Your task to perform on an android device: Open Google Chrome Image 0: 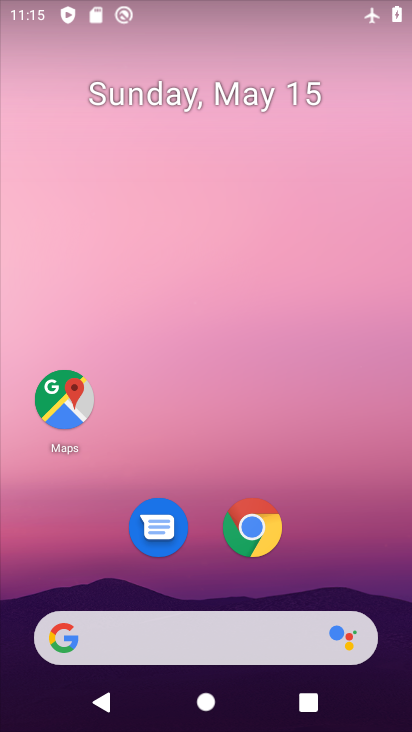
Step 0: drag from (354, 489) to (307, 28)
Your task to perform on an android device: Open Google Chrome Image 1: 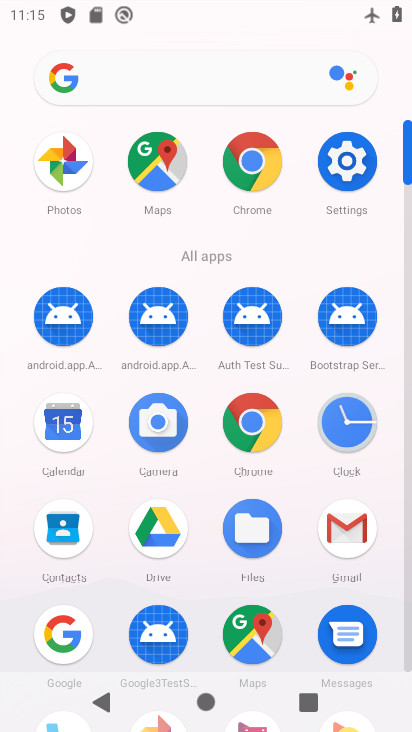
Step 1: drag from (18, 581) to (26, 260)
Your task to perform on an android device: Open Google Chrome Image 2: 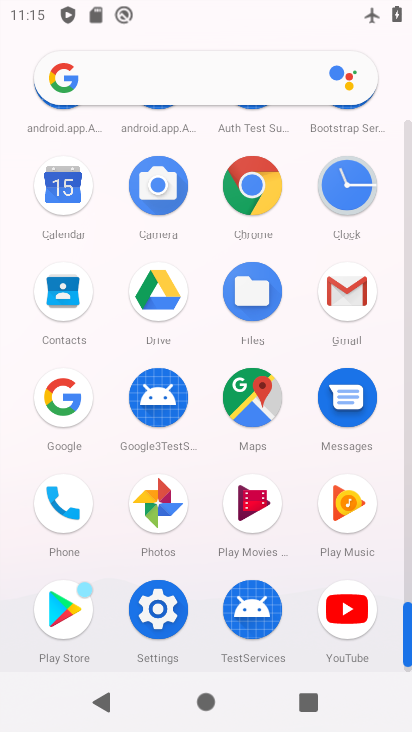
Step 2: click (254, 184)
Your task to perform on an android device: Open Google Chrome Image 3: 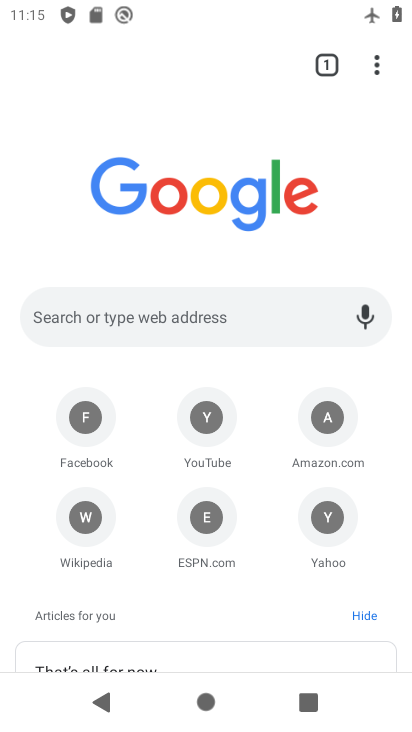
Step 3: task complete